Your task to perform on an android device: turn off wifi Image 0: 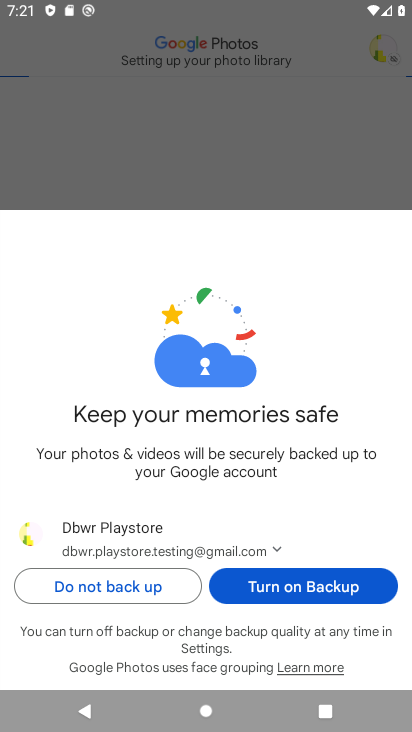
Step 0: press home button
Your task to perform on an android device: turn off wifi Image 1: 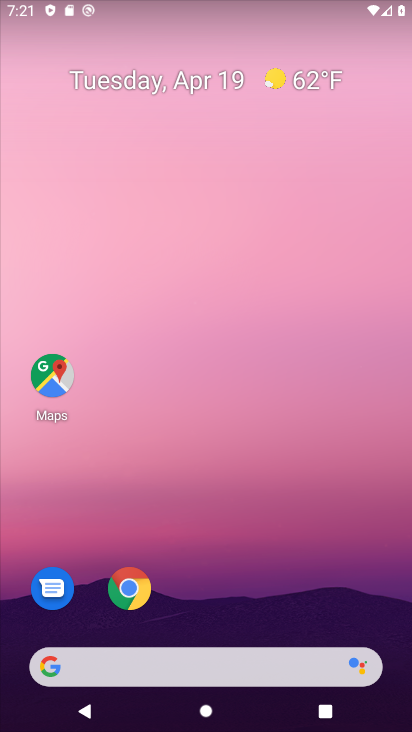
Step 1: drag from (255, 588) to (244, 13)
Your task to perform on an android device: turn off wifi Image 2: 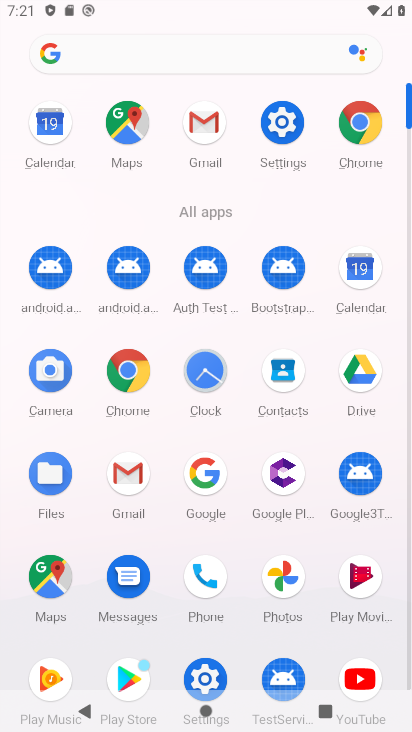
Step 2: click (291, 117)
Your task to perform on an android device: turn off wifi Image 3: 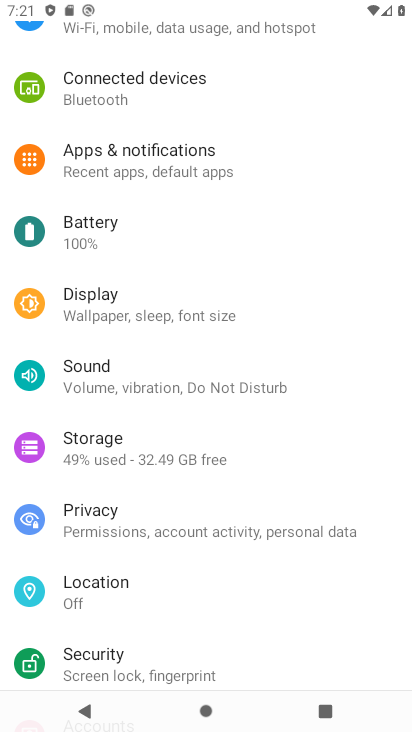
Step 3: drag from (230, 119) to (353, 713)
Your task to perform on an android device: turn off wifi Image 4: 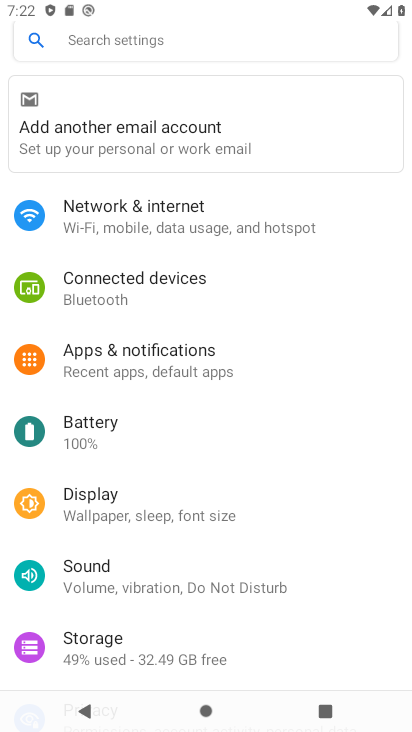
Step 4: click (130, 212)
Your task to perform on an android device: turn off wifi Image 5: 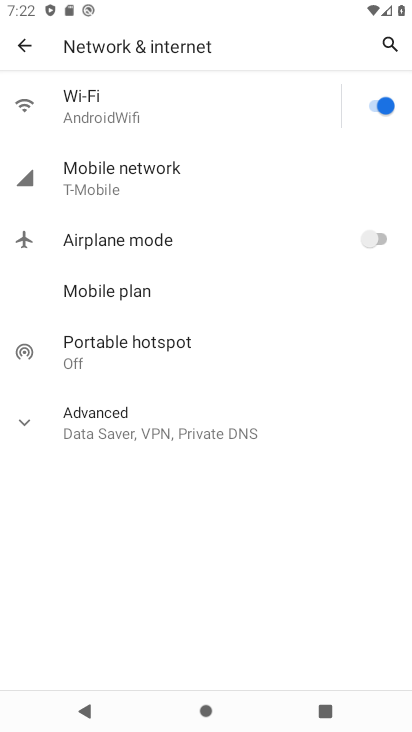
Step 5: click (390, 102)
Your task to perform on an android device: turn off wifi Image 6: 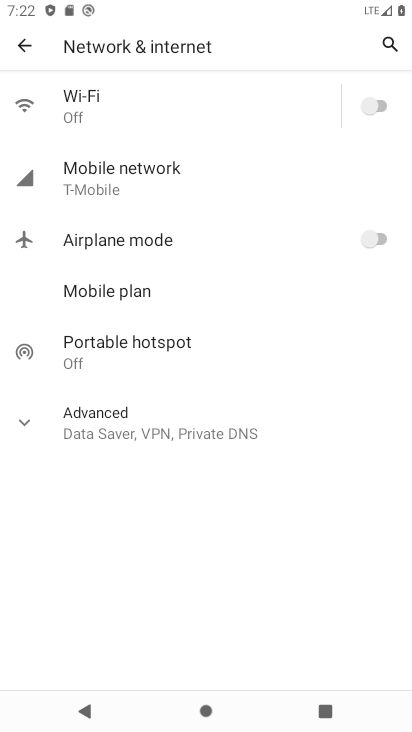
Step 6: task complete